Your task to perform on an android device: Open Android settings Image 0: 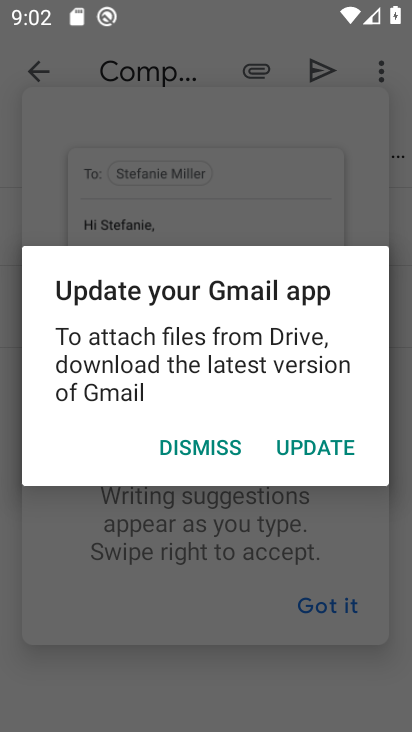
Step 0: press home button
Your task to perform on an android device: Open Android settings Image 1: 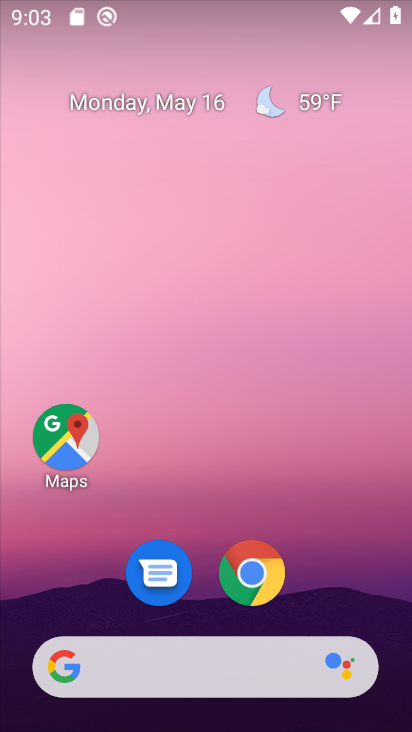
Step 1: drag from (205, 671) to (271, 104)
Your task to perform on an android device: Open Android settings Image 2: 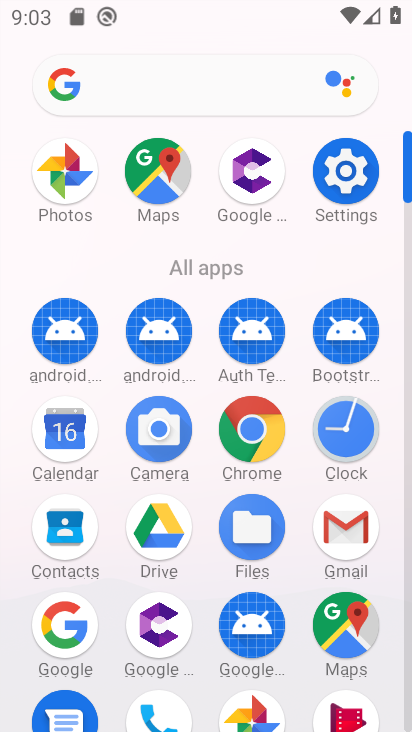
Step 2: click (355, 153)
Your task to perform on an android device: Open Android settings Image 3: 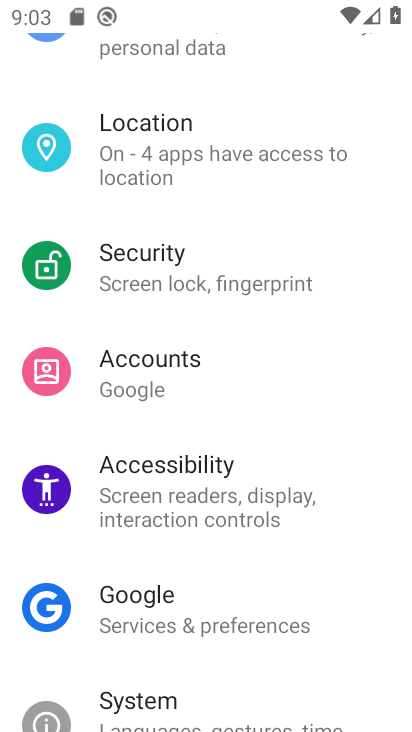
Step 3: drag from (178, 689) to (265, 119)
Your task to perform on an android device: Open Android settings Image 4: 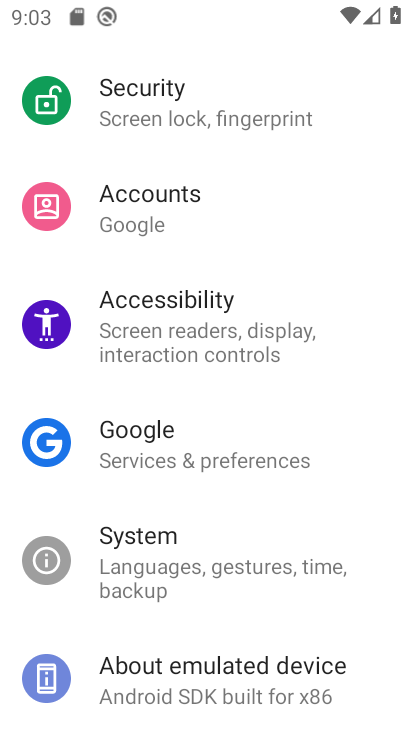
Step 4: click (209, 688)
Your task to perform on an android device: Open Android settings Image 5: 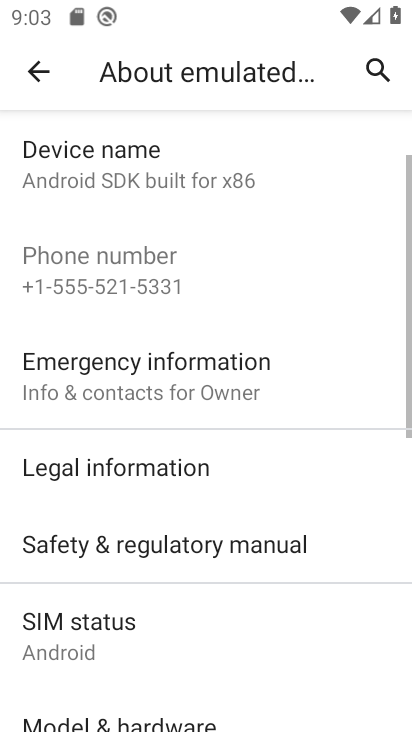
Step 5: task complete